Your task to perform on an android device: Show me productivity apps on the Play Store Image 0: 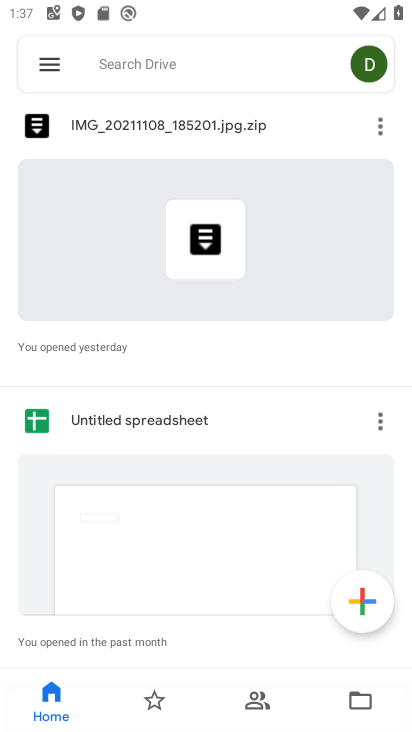
Step 0: press home button
Your task to perform on an android device: Show me productivity apps on the Play Store Image 1: 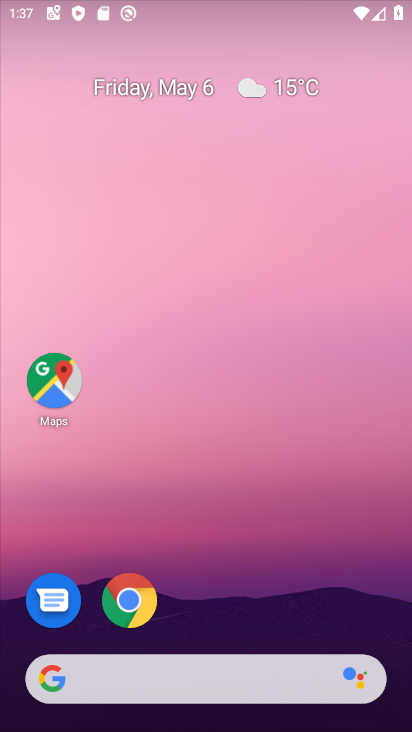
Step 1: drag from (322, 511) to (294, 14)
Your task to perform on an android device: Show me productivity apps on the Play Store Image 2: 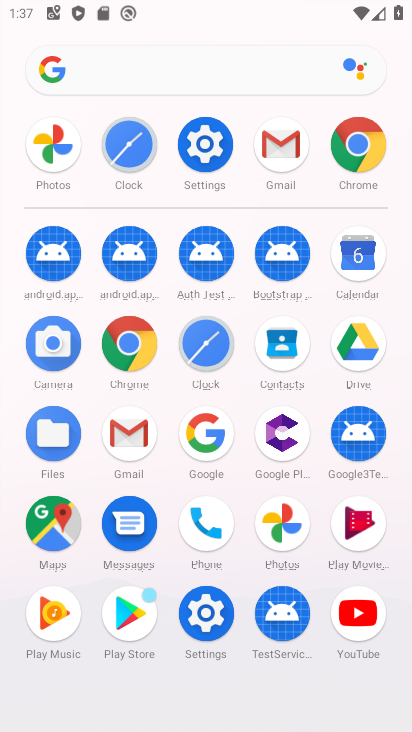
Step 2: click (140, 622)
Your task to perform on an android device: Show me productivity apps on the Play Store Image 3: 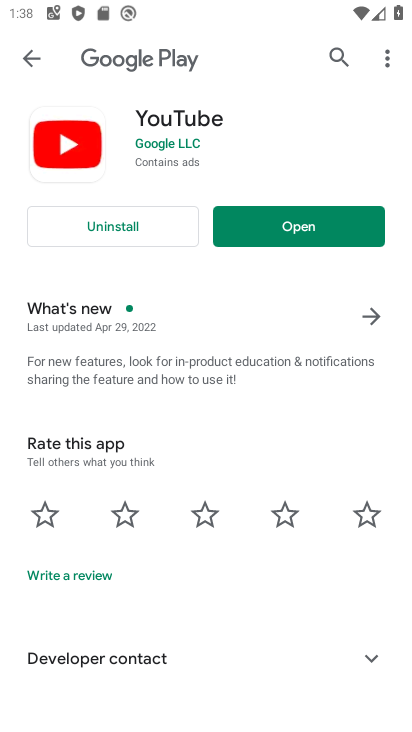
Step 3: press back button
Your task to perform on an android device: Show me productivity apps on the Play Store Image 4: 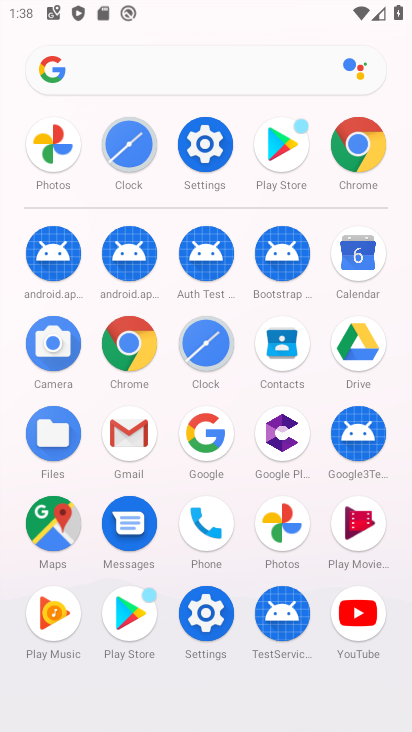
Step 4: click (129, 611)
Your task to perform on an android device: Show me productivity apps on the Play Store Image 5: 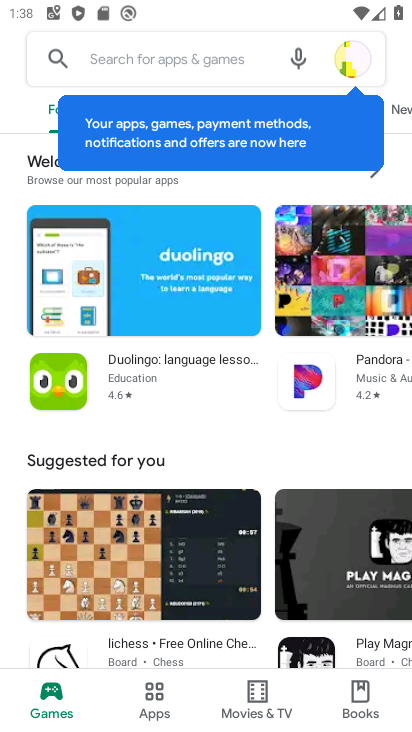
Step 5: click (147, 696)
Your task to perform on an android device: Show me productivity apps on the Play Store Image 6: 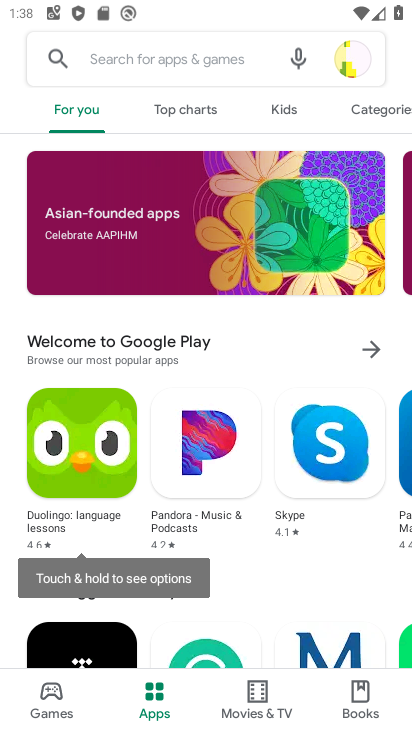
Step 6: click (350, 65)
Your task to perform on an android device: Show me productivity apps on the Play Store Image 7: 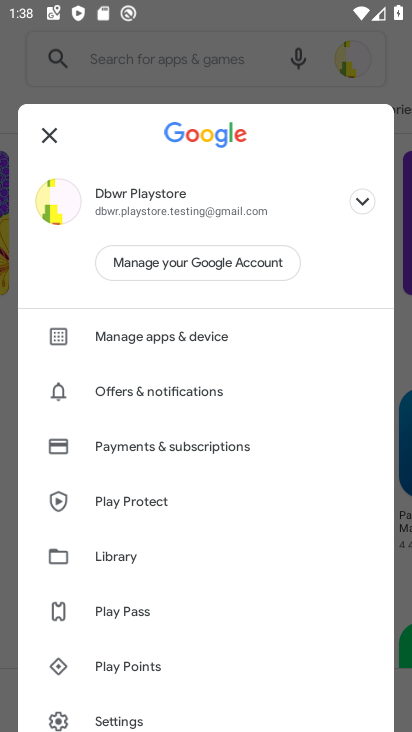
Step 7: task complete